Your task to perform on an android device: Do I have any events today? Image 0: 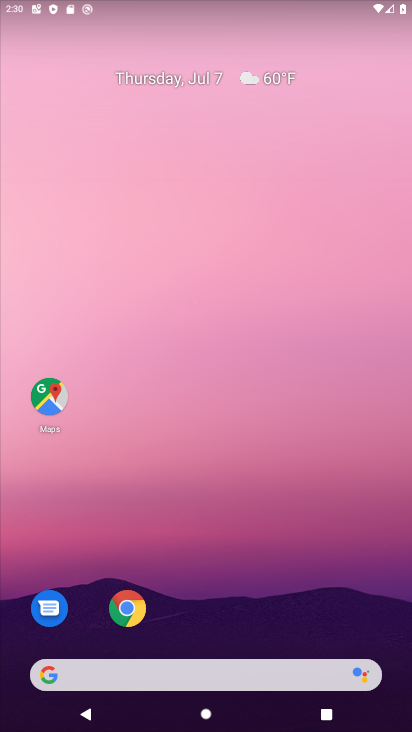
Step 0: drag from (228, 636) to (220, 124)
Your task to perform on an android device: Do I have any events today? Image 1: 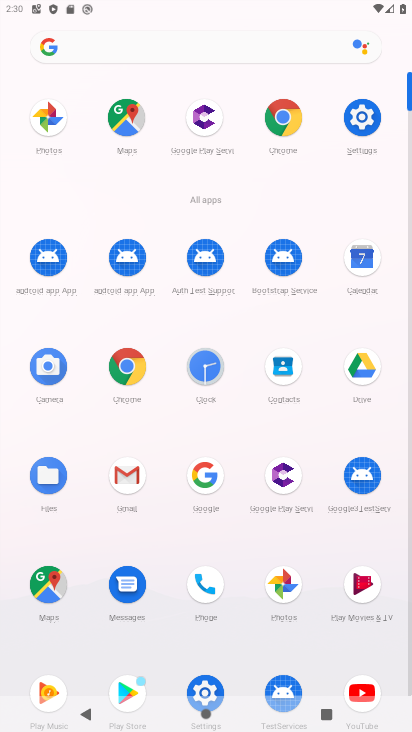
Step 1: click (355, 252)
Your task to perform on an android device: Do I have any events today? Image 2: 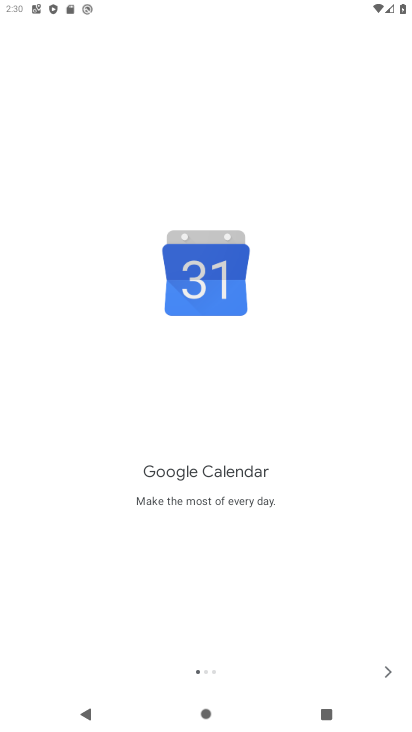
Step 2: click (395, 662)
Your task to perform on an android device: Do I have any events today? Image 3: 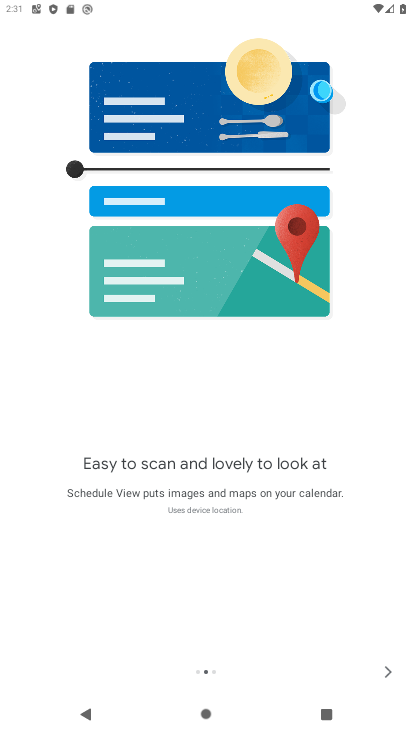
Step 3: click (384, 658)
Your task to perform on an android device: Do I have any events today? Image 4: 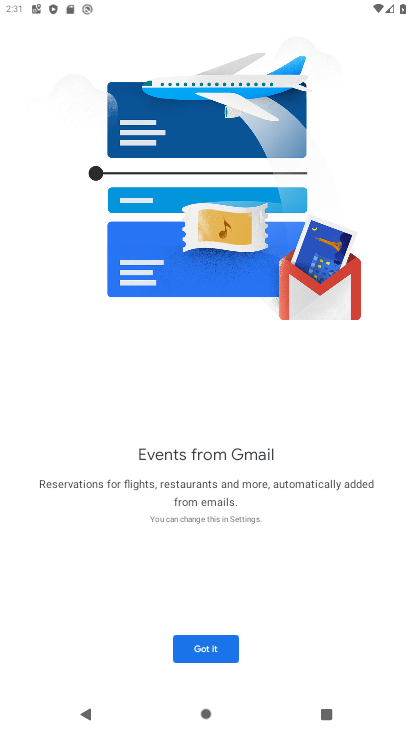
Step 4: click (212, 647)
Your task to perform on an android device: Do I have any events today? Image 5: 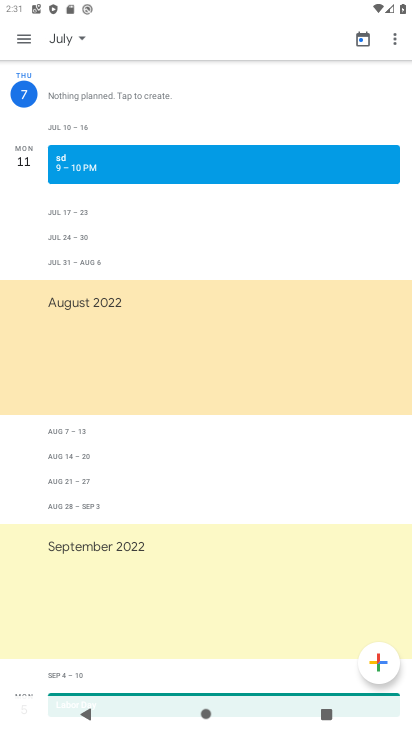
Step 5: click (22, 95)
Your task to perform on an android device: Do I have any events today? Image 6: 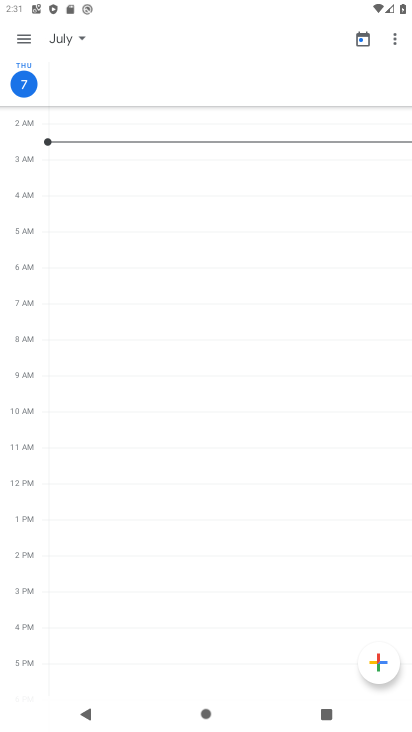
Step 6: task complete